Your task to perform on an android device: toggle data saver in the chrome app Image 0: 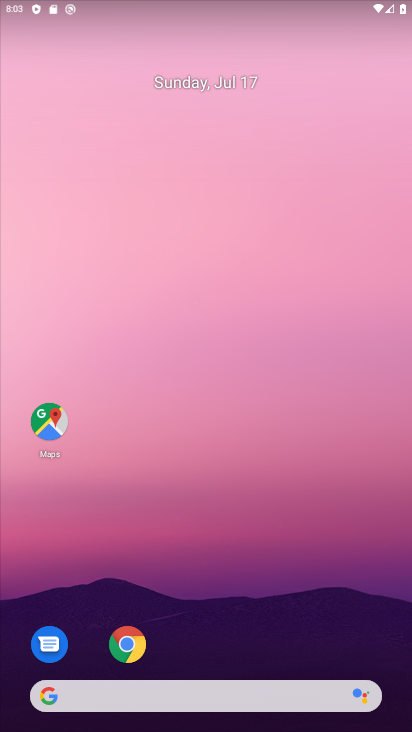
Step 0: drag from (217, 442) to (224, 199)
Your task to perform on an android device: toggle data saver in the chrome app Image 1: 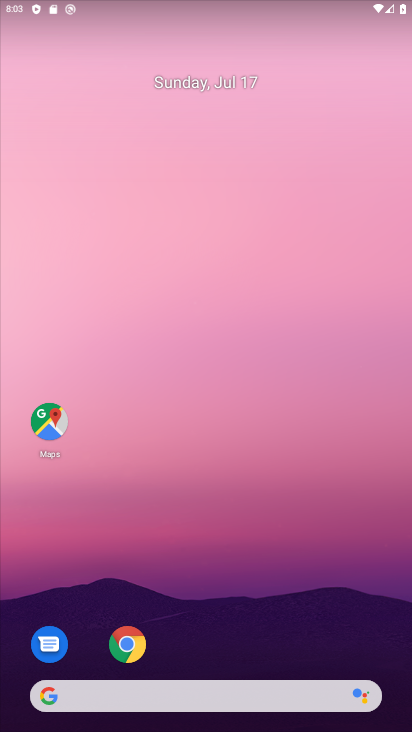
Step 1: drag from (269, 703) to (289, 77)
Your task to perform on an android device: toggle data saver in the chrome app Image 2: 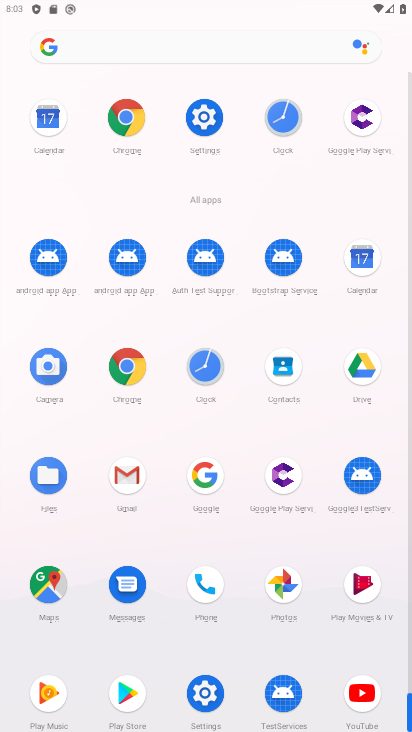
Step 2: click (120, 122)
Your task to perform on an android device: toggle data saver in the chrome app Image 3: 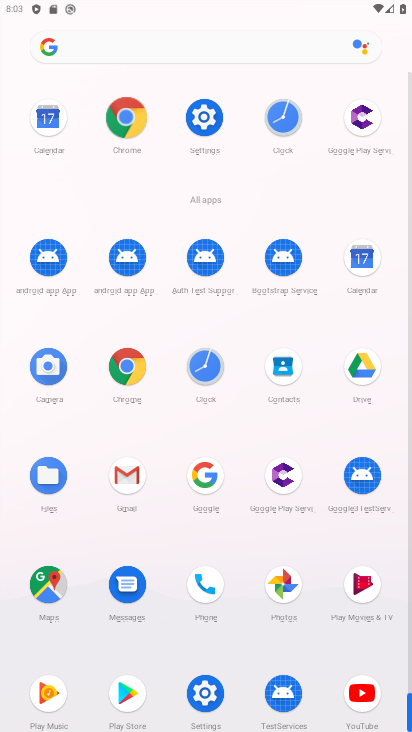
Step 3: click (129, 116)
Your task to perform on an android device: toggle data saver in the chrome app Image 4: 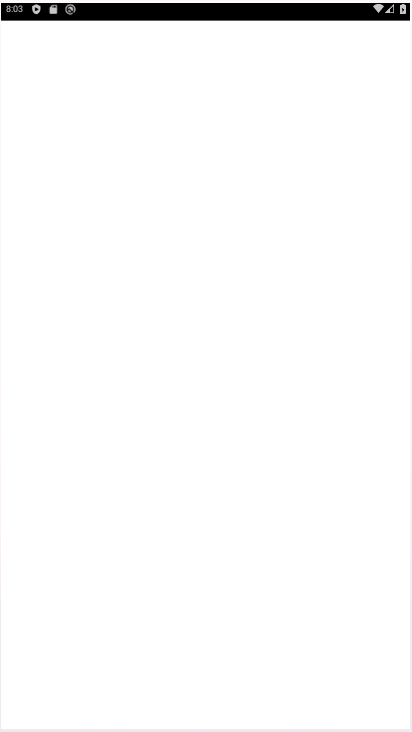
Step 4: click (130, 117)
Your task to perform on an android device: toggle data saver in the chrome app Image 5: 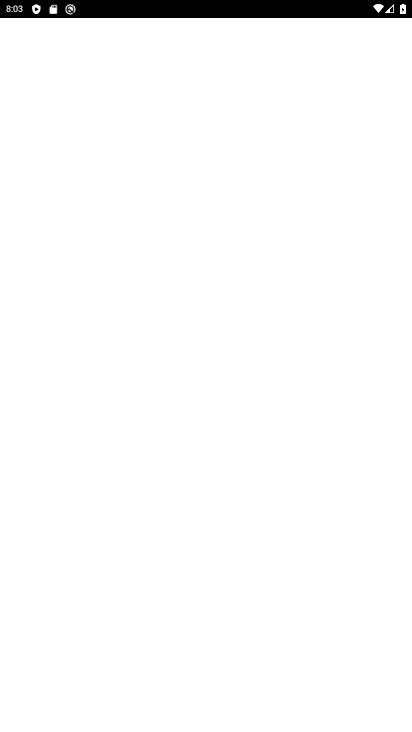
Step 5: click (129, 118)
Your task to perform on an android device: toggle data saver in the chrome app Image 6: 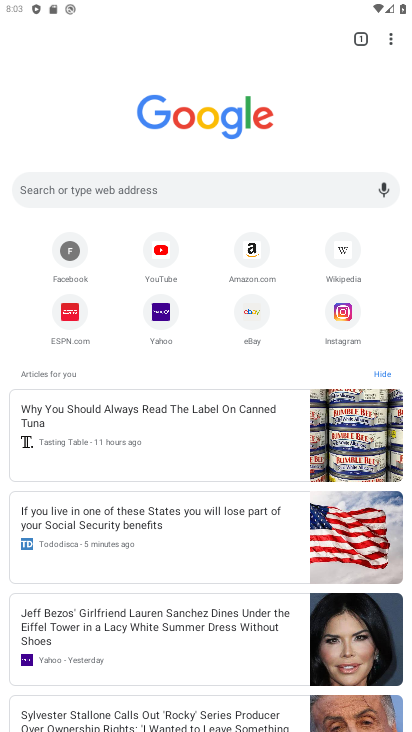
Step 6: drag from (388, 43) to (247, 331)
Your task to perform on an android device: toggle data saver in the chrome app Image 7: 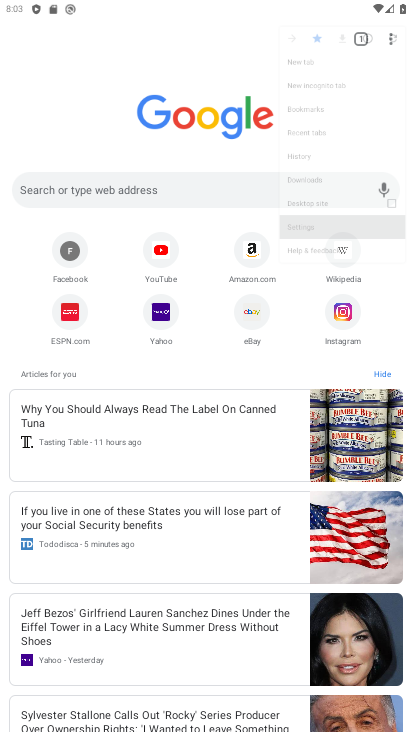
Step 7: click (251, 328)
Your task to perform on an android device: toggle data saver in the chrome app Image 8: 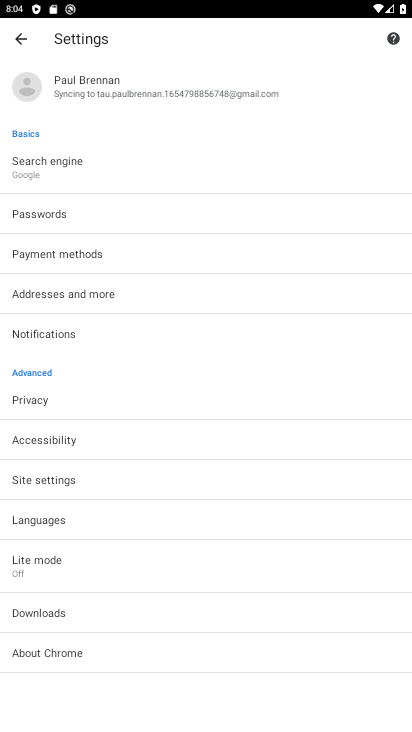
Step 8: click (33, 565)
Your task to perform on an android device: toggle data saver in the chrome app Image 9: 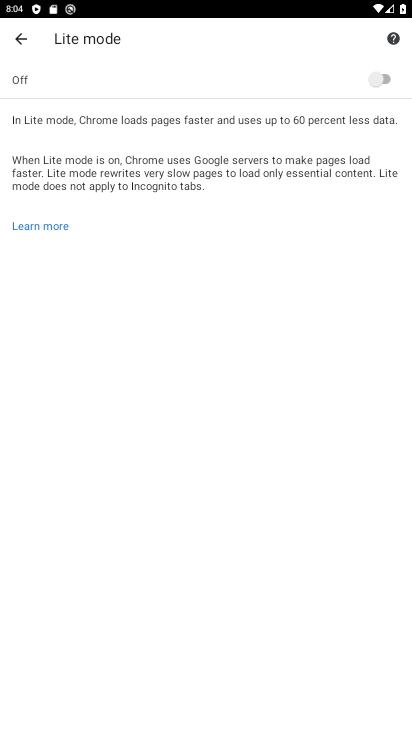
Step 9: click (370, 79)
Your task to perform on an android device: toggle data saver in the chrome app Image 10: 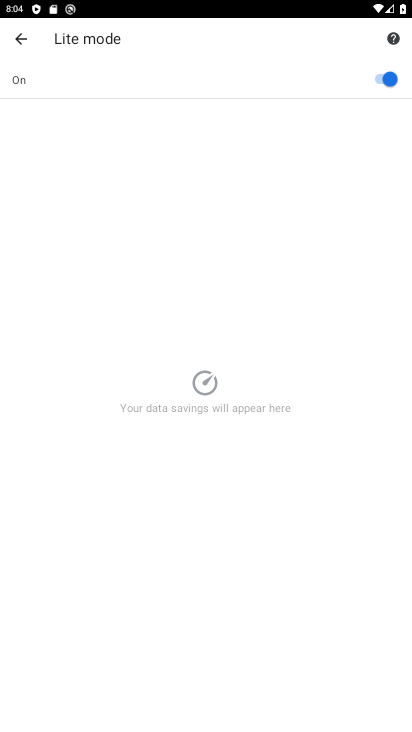
Step 10: task complete